Your task to perform on an android device: Open location settings Image 0: 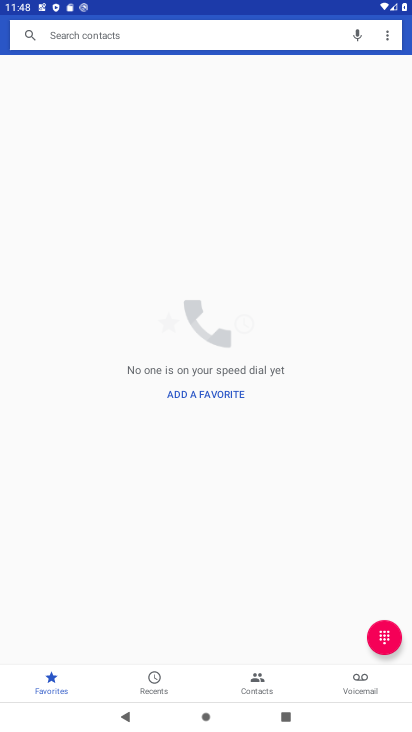
Step 0: press home button
Your task to perform on an android device: Open location settings Image 1: 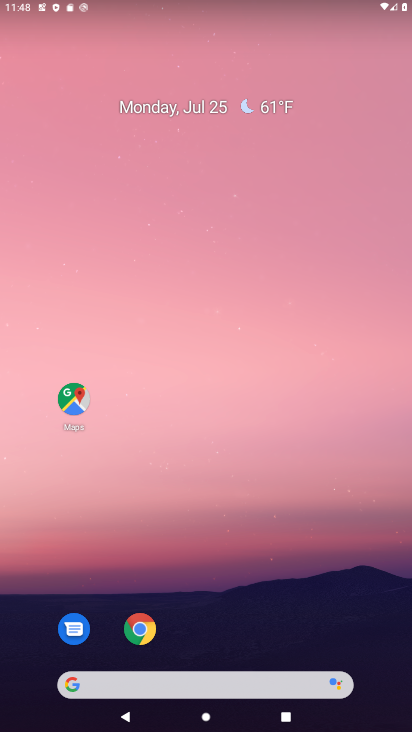
Step 1: drag from (218, 652) to (224, 178)
Your task to perform on an android device: Open location settings Image 2: 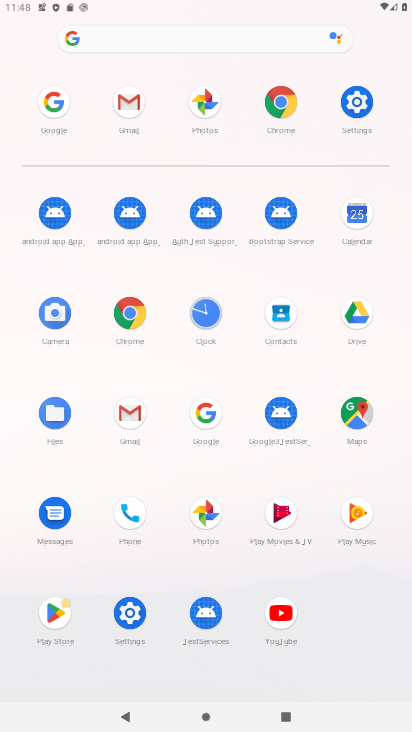
Step 2: click (357, 109)
Your task to perform on an android device: Open location settings Image 3: 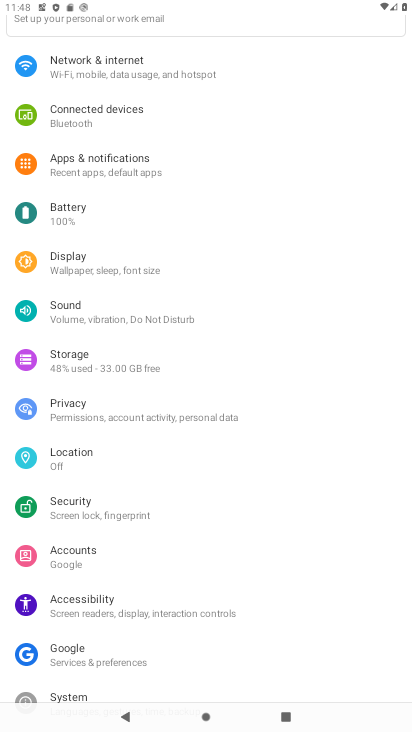
Step 3: click (131, 452)
Your task to perform on an android device: Open location settings Image 4: 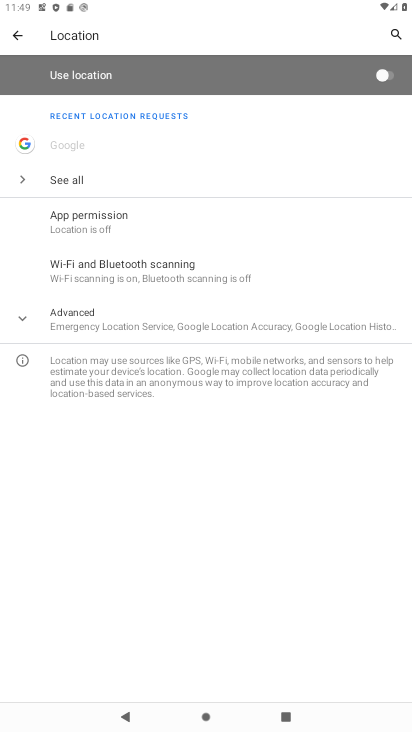
Step 4: task complete